Your task to perform on an android device: Search for Italian restaurants on Maps Image 0: 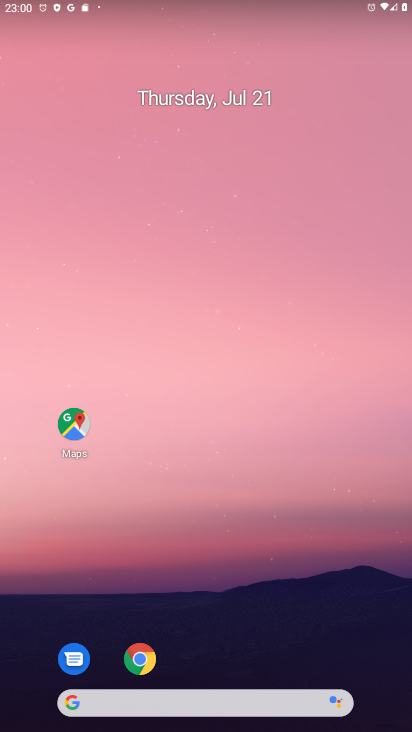
Step 0: click (73, 425)
Your task to perform on an android device: Search for Italian restaurants on Maps Image 1: 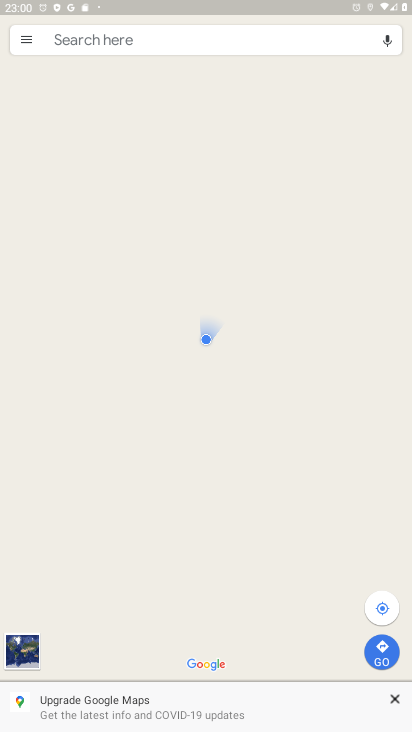
Step 1: click (176, 35)
Your task to perform on an android device: Search for Italian restaurants on Maps Image 2: 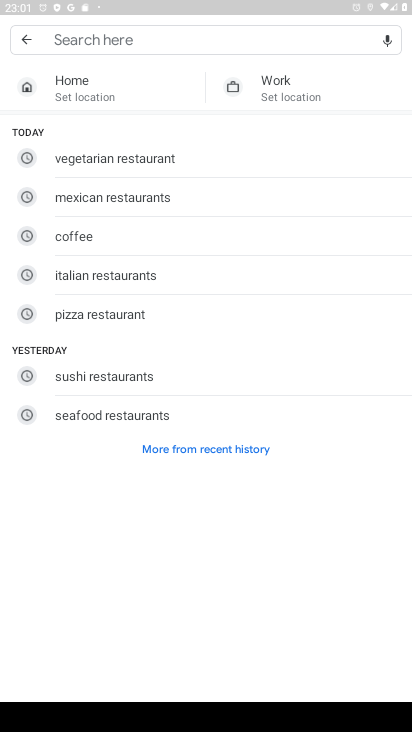
Step 2: type "Italian restaurants"
Your task to perform on an android device: Search for Italian restaurants on Maps Image 3: 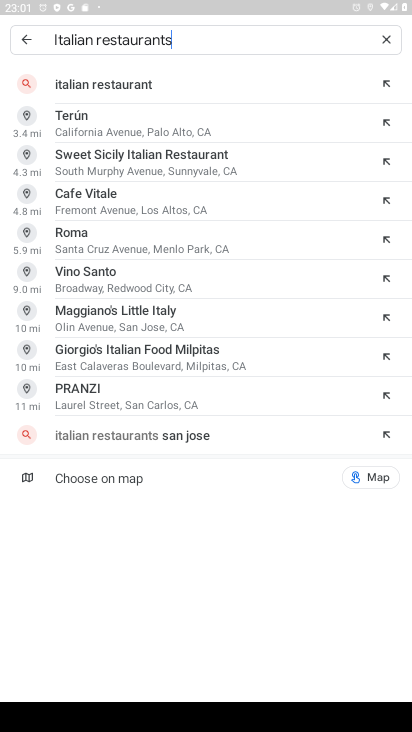
Step 3: click (113, 84)
Your task to perform on an android device: Search for Italian restaurants on Maps Image 4: 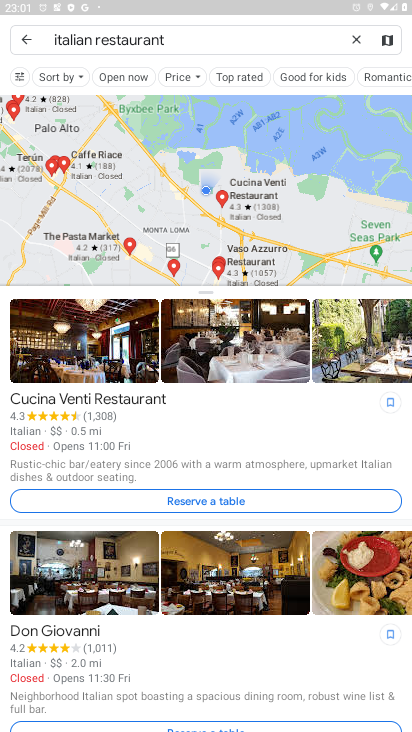
Step 4: task complete